Your task to perform on an android device: Open Youtube and go to "Your channel" Image 0: 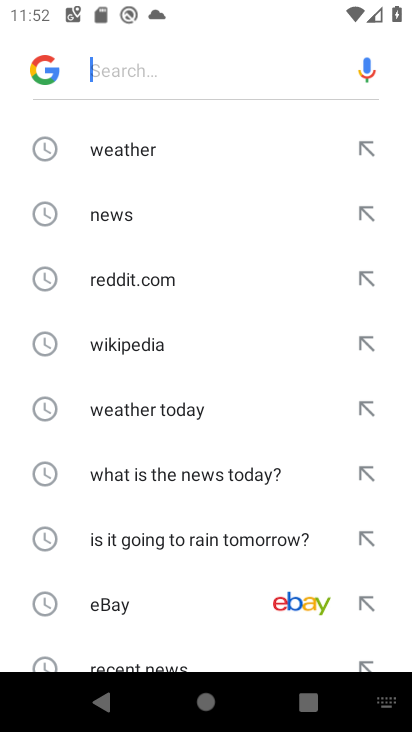
Step 0: press home button
Your task to perform on an android device: Open Youtube and go to "Your channel" Image 1: 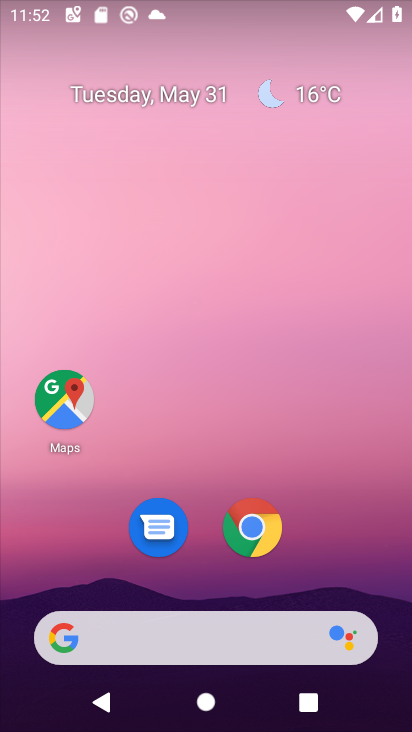
Step 1: drag from (346, 593) to (233, 32)
Your task to perform on an android device: Open Youtube and go to "Your channel" Image 2: 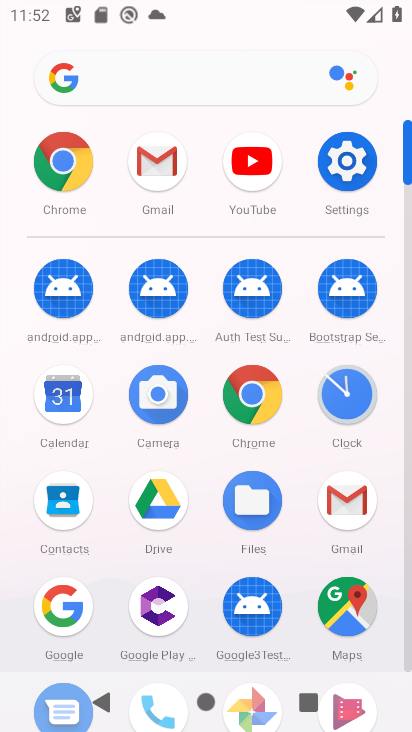
Step 2: click (248, 170)
Your task to perform on an android device: Open Youtube and go to "Your channel" Image 3: 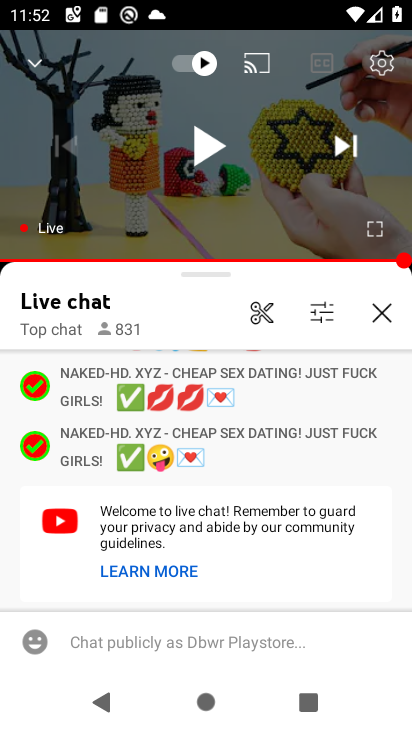
Step 3: click (36, 69)
Your task to perform on an android device: Open Youtube and go to "Your channel" Image 4: 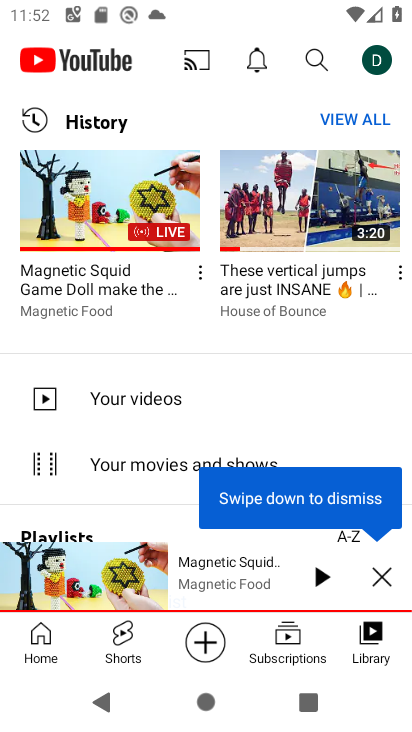
Step 4: click (372, 63)
Your task to perform on an android device: Open Youtube and go to "Your channel" Image 5: 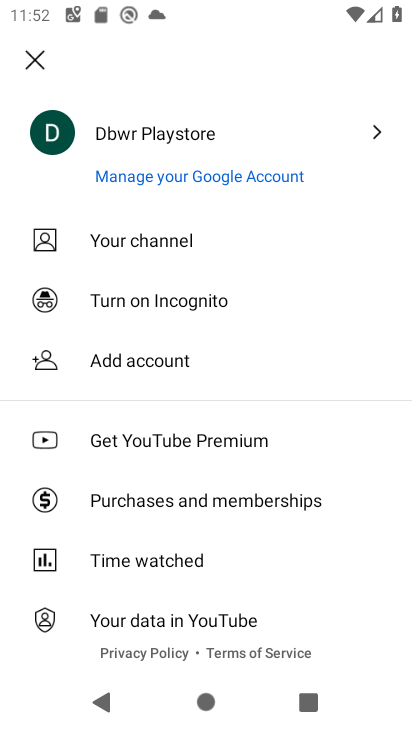
Step 5: click (105, 246)
Your task to perform on an android device: Open Youtube and go to "Your channel" Image 6: 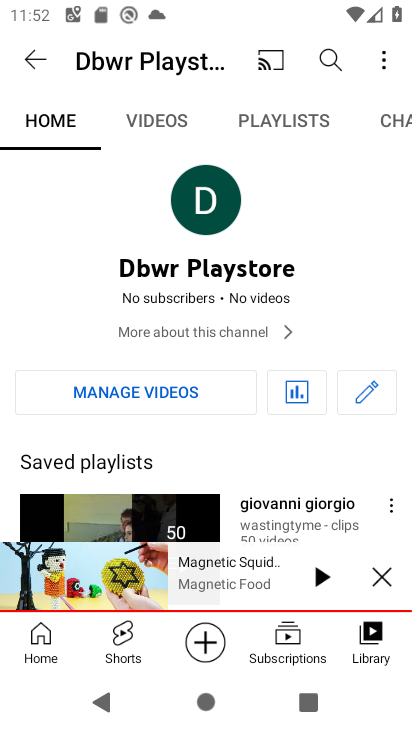
Step 6: task complete